Your task to perform on an android device: What's the price of the EGO 14-in 56-Volt Brushless Cordless Chainsaw? Image 0: 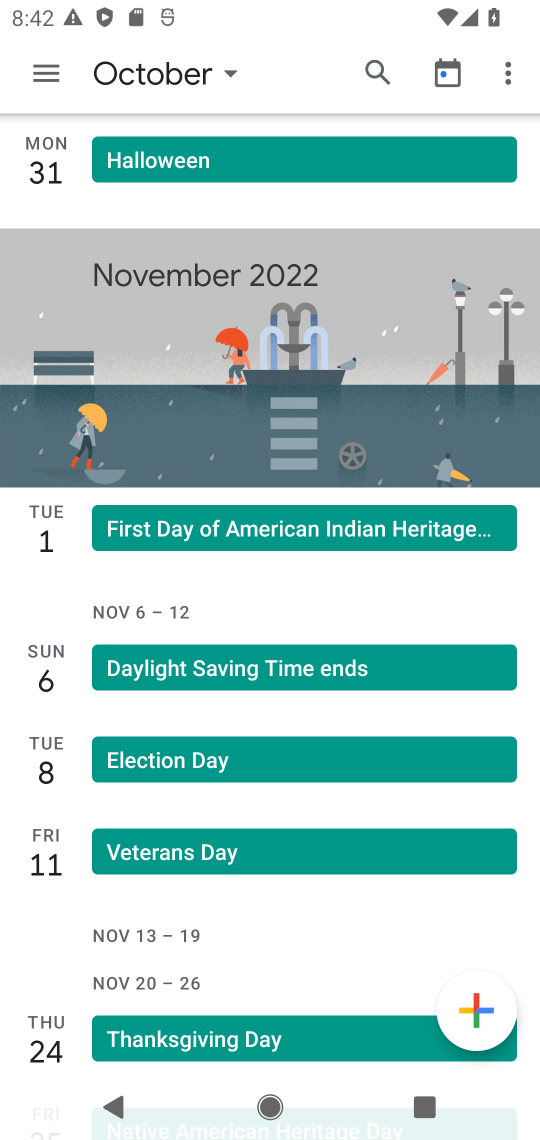
Step 0: press home button
Your task to perform on an android device: What's the price of the EGO 14-in 56-Volt Brushless Cordless Chainsaw? Image 1: 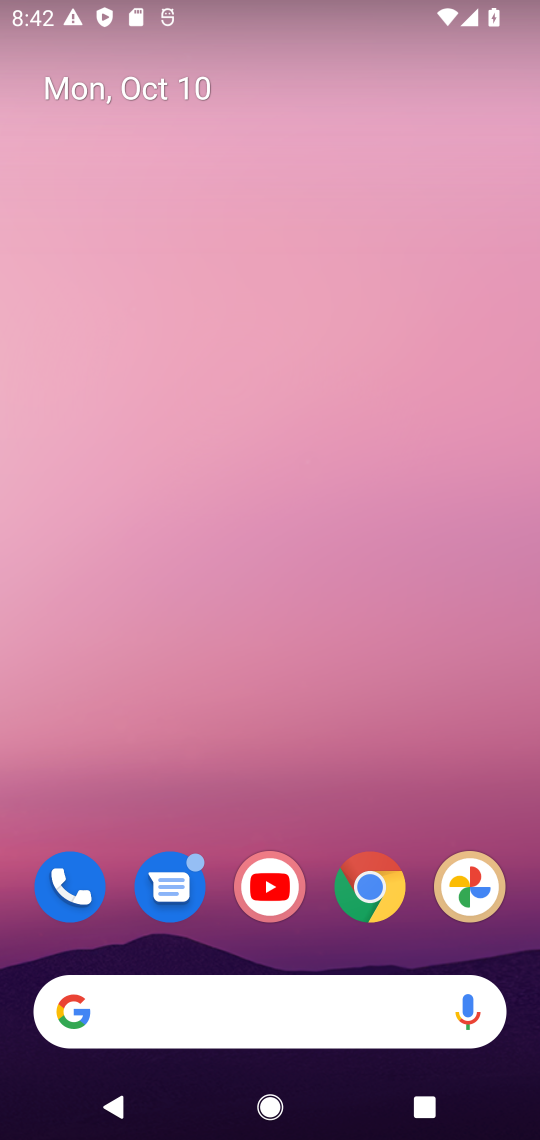
Step 1: click (378, 891)
Your task to perform on an android device: What's the price of the EGO 14-in 56-Volt Brushless Cordless Chainsaw? Image 2: 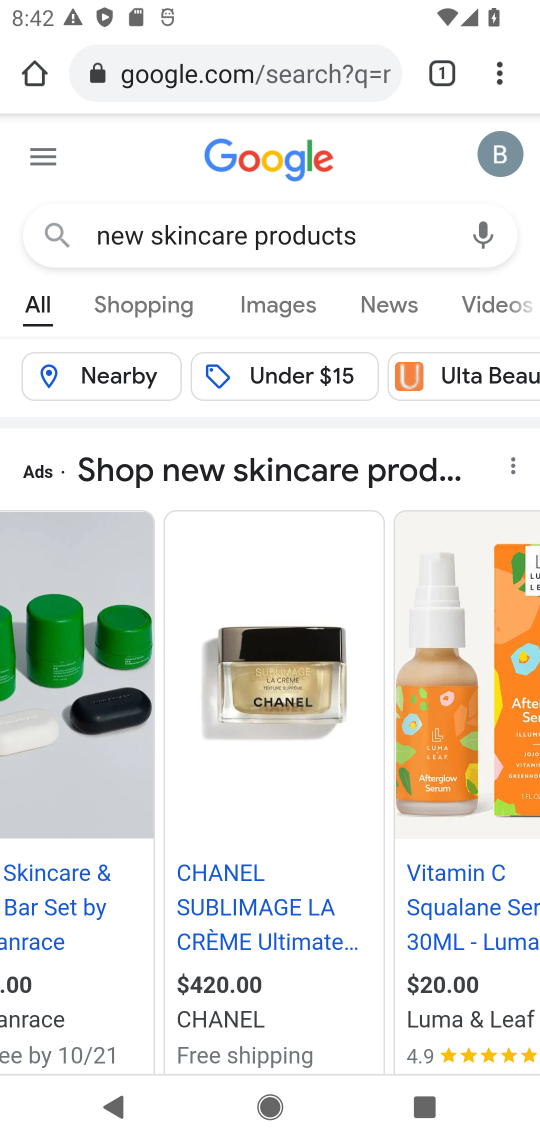
Step 2: click (194, 66)
Your task to perform on an android device: What's the price of the EGO 14-in 56-Volt Brushless Cordless Chainsaw? Image 3: 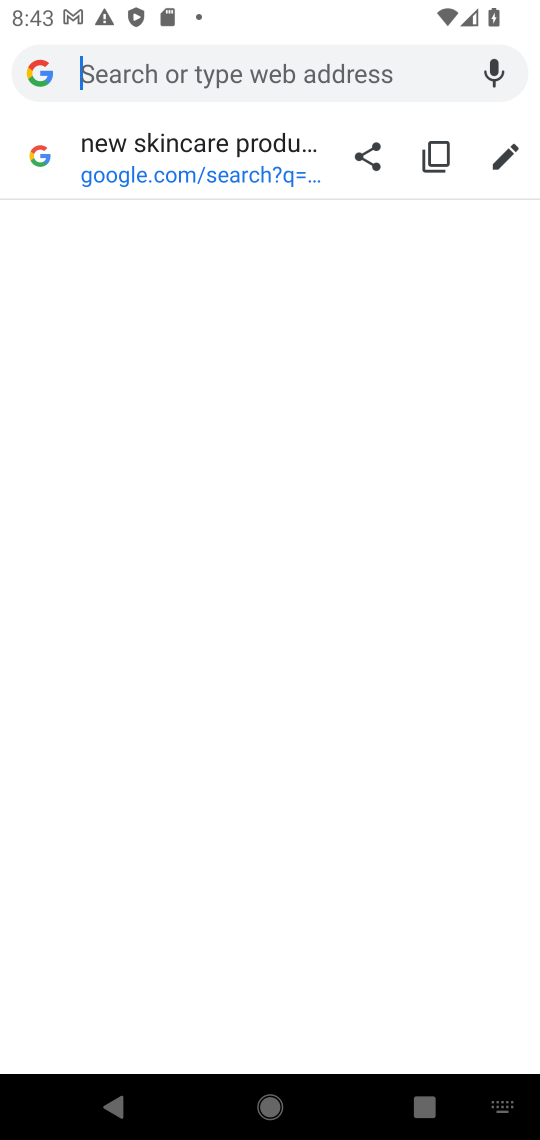
Step 3: type " price of the EGO 14-in 56-Volt Brushless Cordless Chainsaw?"
Your task to perform on an android device: What's the price of the EGO 14-in 56-Volt Brushless Cordless Chainsaw? Image 4: 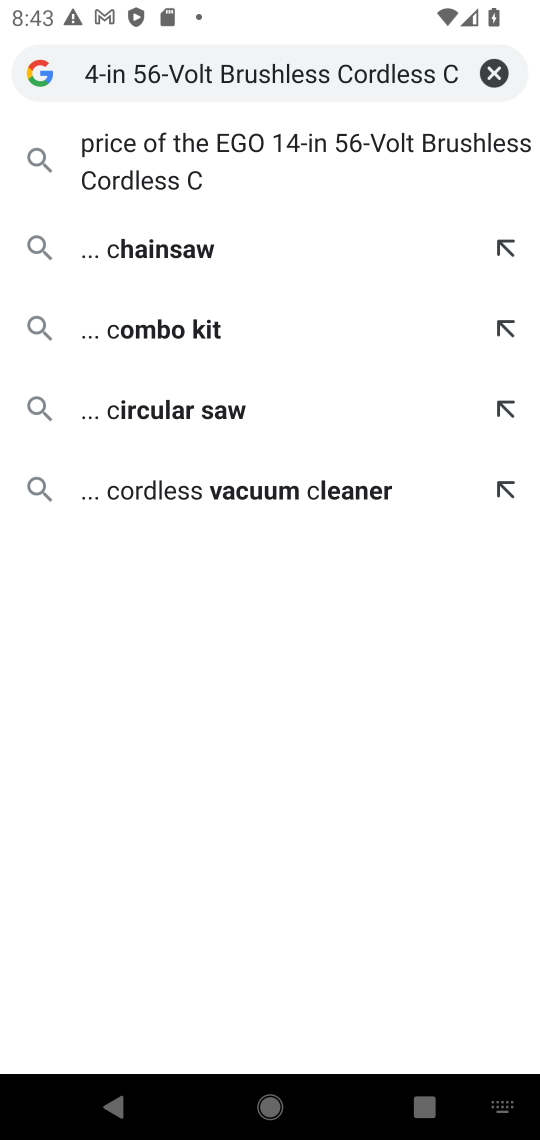
Step 4: press enter
Your task to perform on an android device: What's the price of the EGO 14-in 56-Volt Brushless Cordless Chainsaw? Image 5: 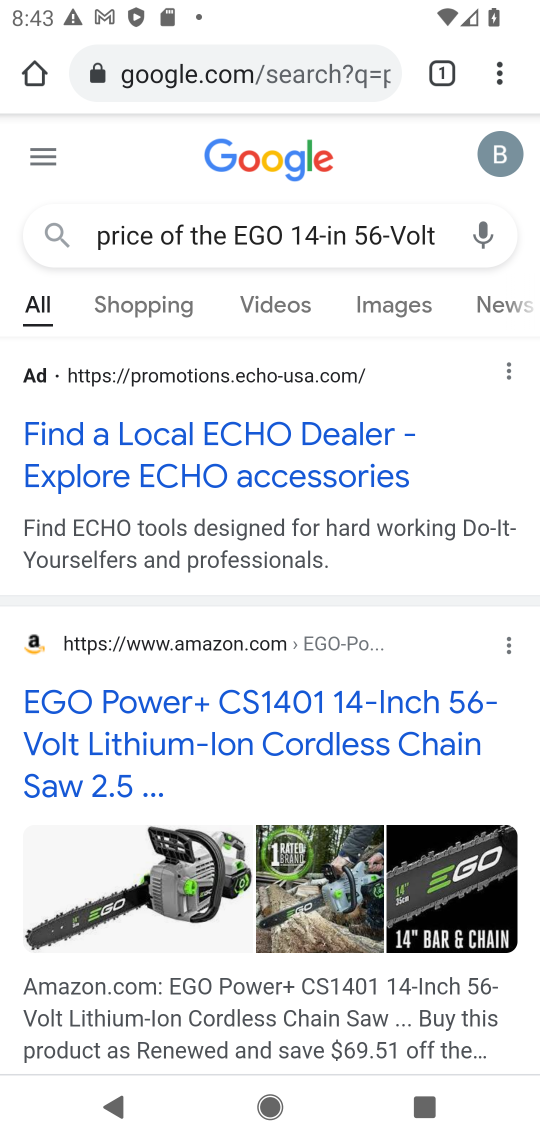
Step 5: drag from (303, 681) to (227, 297)
Your task to perform on an android device: What's the price of the EGO 14-in 56-Volt Brushless Cordless Chainsaw? Image 6: 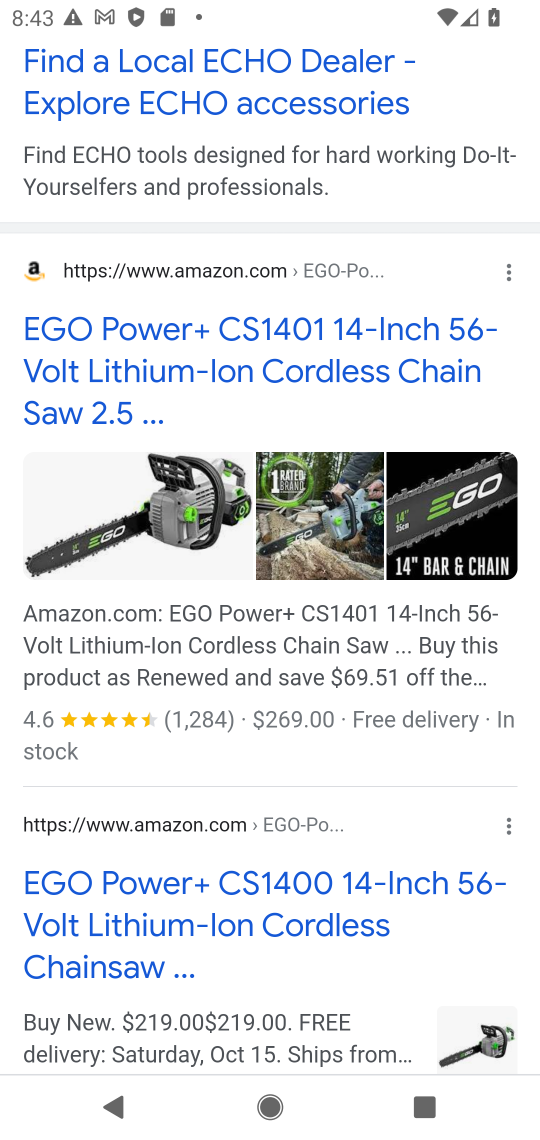
Step 6: drag from (401, 804) to (360, 434)
Your task to perform on an android device: What's the price of the EGO 14-in 56-Volt Brushless Cordless Chainsaw? Image 7: 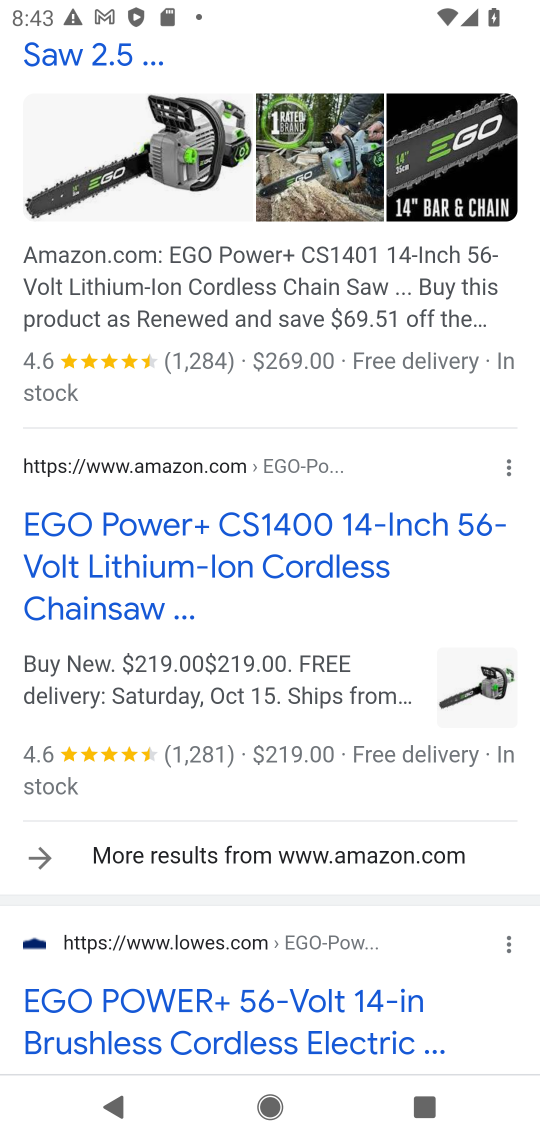
Step 7: drag from (386, 468) to (455, 893)
Your task to perform on an android device: What's the price of the EGO 14-in 56-Volt Brushless Cordless Chainsaw? Image 8: 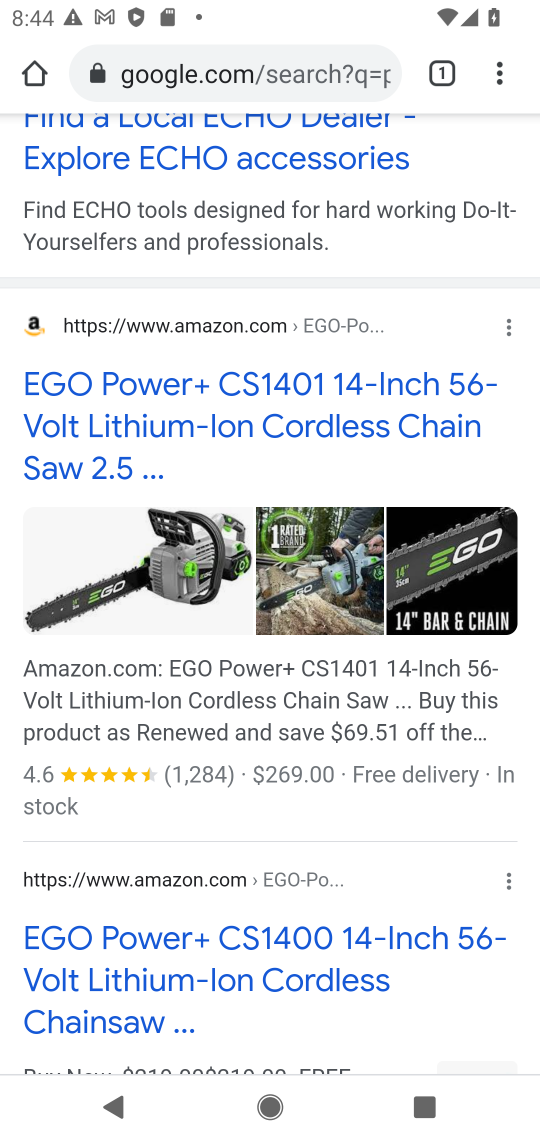
Step 8: click (230, 433)
Your task to perform on an android device: What's the price of the EGO 14-in 56-Volt Brushless Cordless Chainsaw? Image 9: 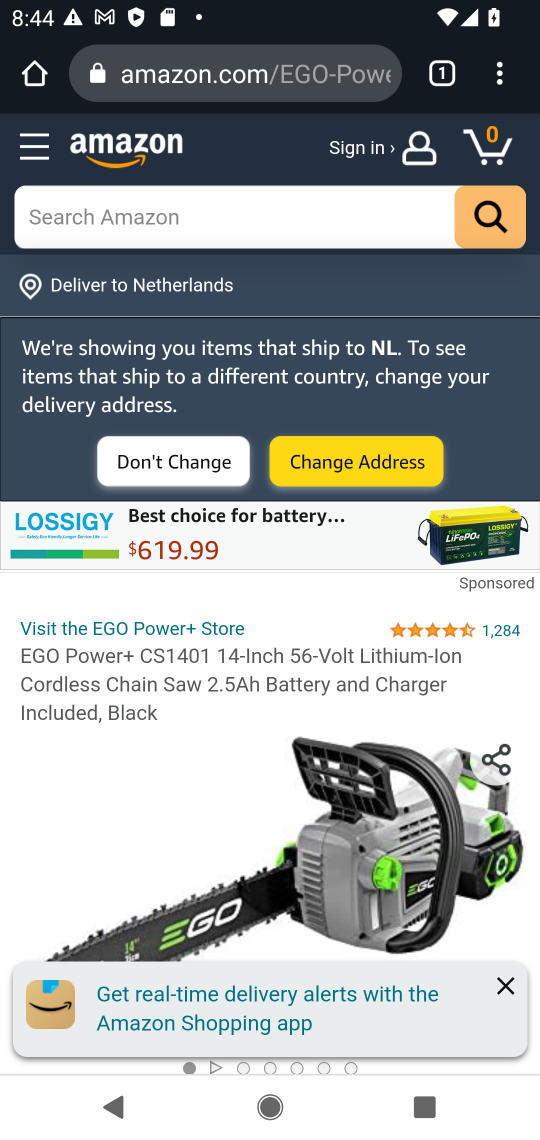
Step 9: task complete